Your task to perform on an android device: turn off notifications settings in the gmail app Image 0: 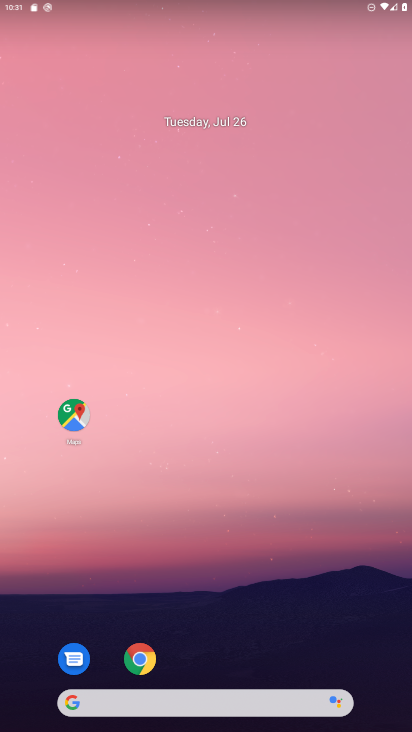
Step 0: drag from (377, 706) to (291, 14)
Your task to perform on an android device: turn off notifications settings in the gmail app Image 1: 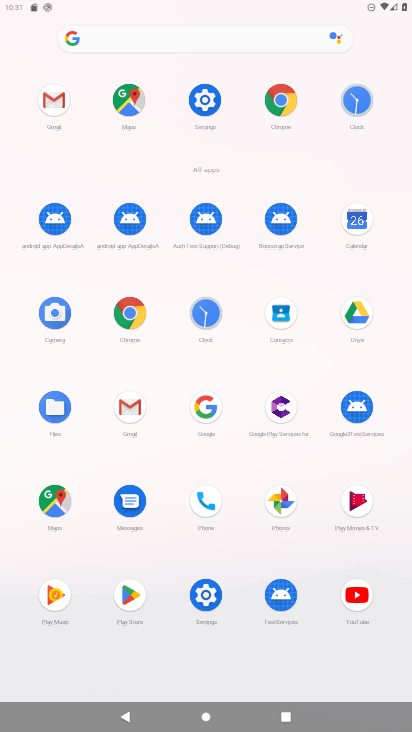
Step 1: click (127, 400)
Your task to perform on an android device: turn off notifications settings in the gmail app Image 2: 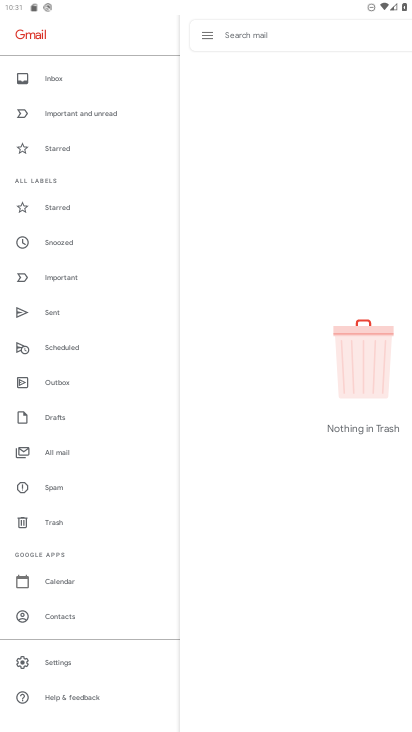
Step 2: click (44, 658)
Your task to perform on an android device: turn off notifications settings in the gmail app Image 3: 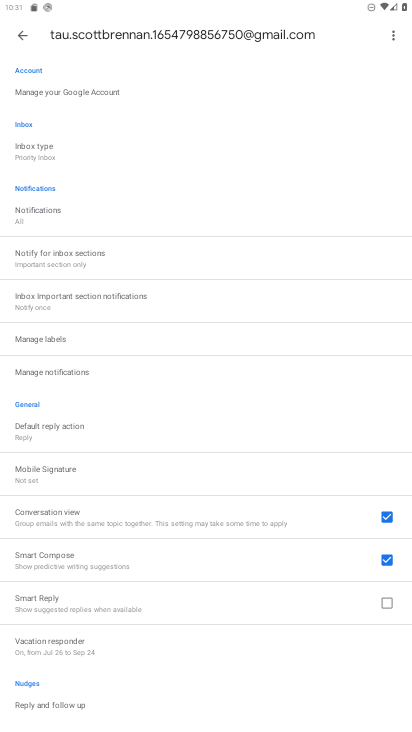
Step 3: click (40, 150)
Your task to perform on an android device: turn off notifications settings in the gmail app Image 4: 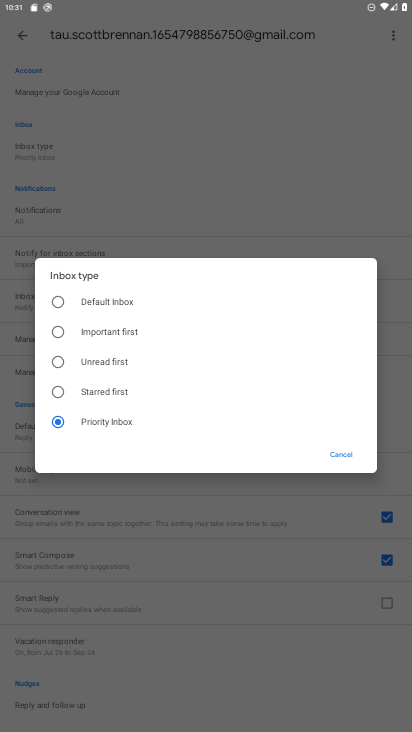
Step 4: click (19, 46)
Your task to perform on an android device: turn off notifications settings in the gmail app Image 5: 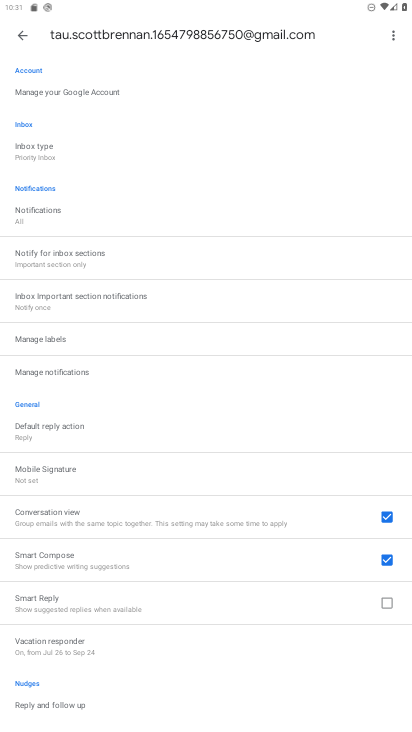
Step 5: click (30, 209)
Your task to perform on an android device: turn off notifications settings in the gmail app Image 6: 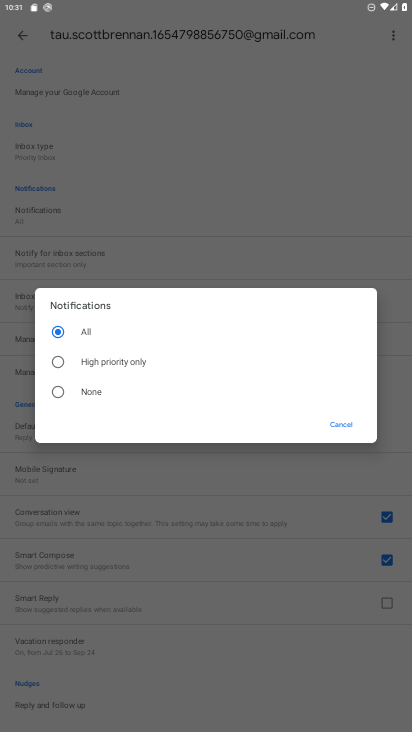
Step 6: click (63, 390)
Your task to perform on an android device: turn off notifications settings in the gmail app Image 7: 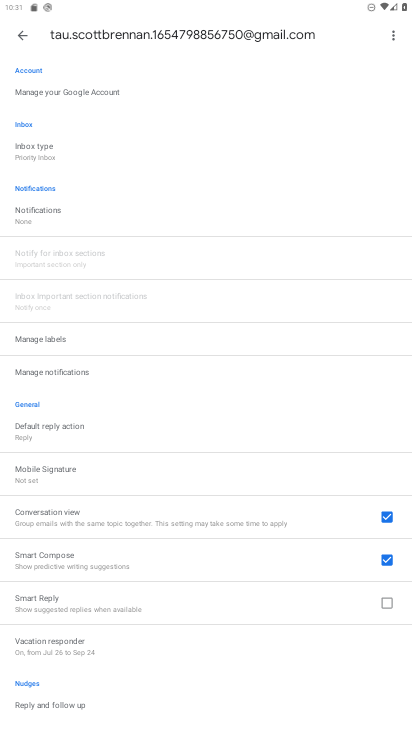
Step 7: task complete